Your task to perform on an android device: open a bookmark in the chrome app Image 0: 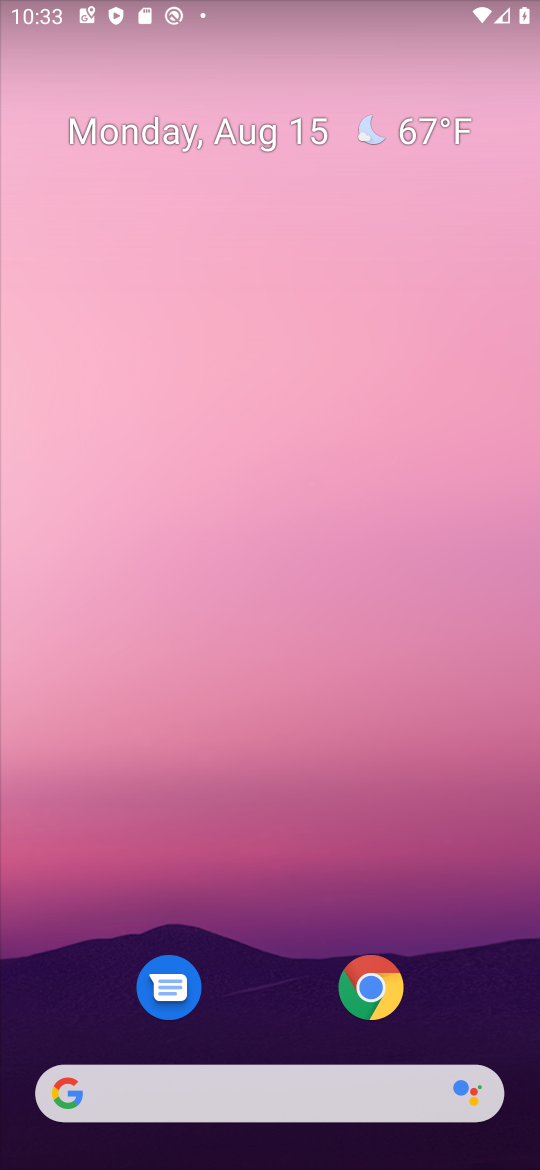
Step 0: click (356, 1005)
Your task to perform on an android device: open a bookmark in the chrome app Image 1: 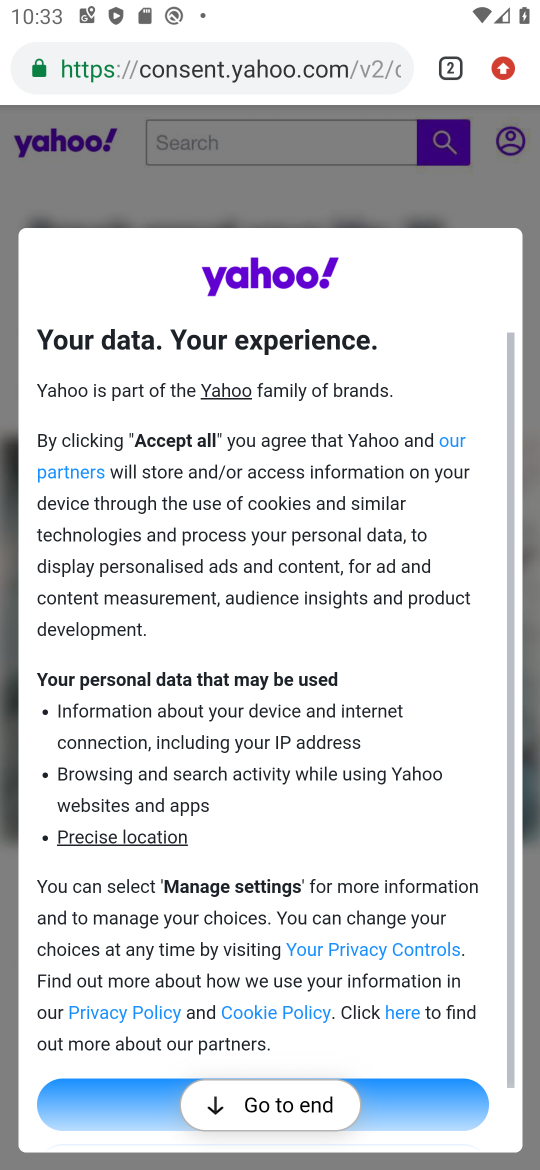
Step 1: task complete